Your task to perform on an android device: empty trash in google photos Image 0: 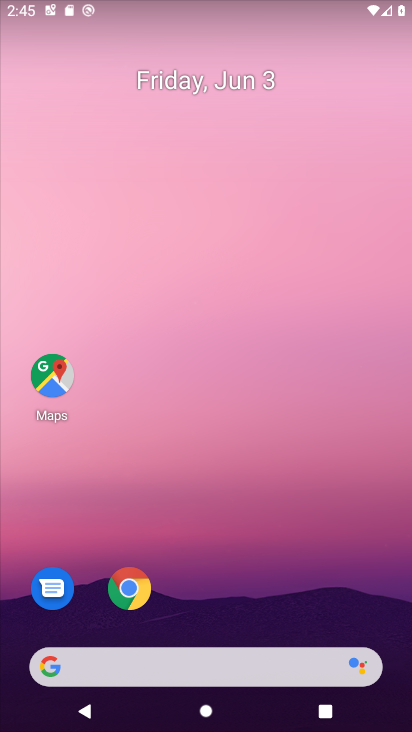
Step 0: drag from (238, 568) to (265, 148)
Your task to perform on an android device: empty trash in google photos Image 1: 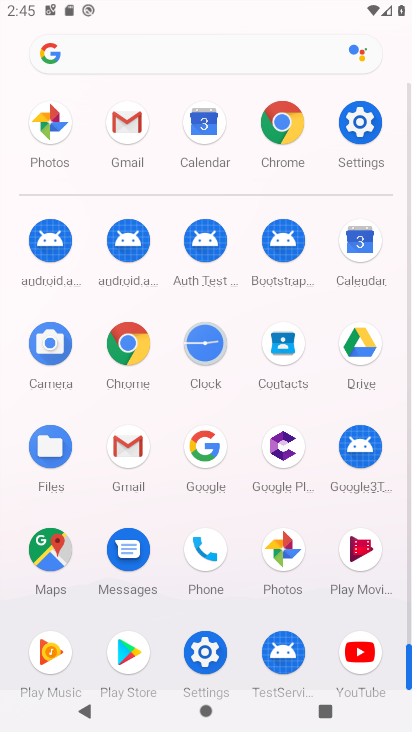
Step 1: click (291, 546)
Your task to perform on an android device: empty trash in google photos Image 2: 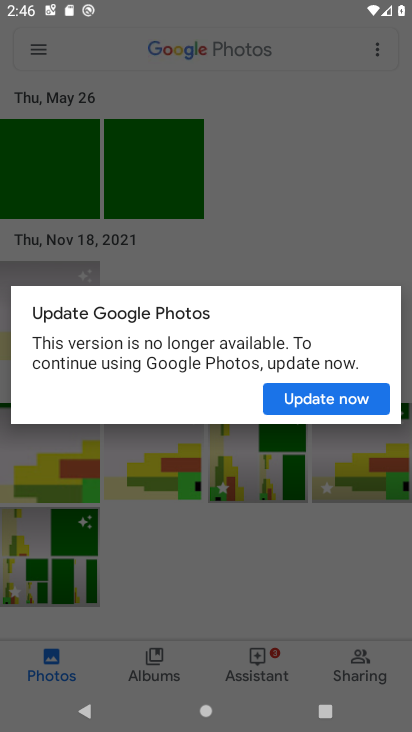
Step 2: task complete